Your task to perform on an android device: Show me the alarms in the clock app Image 0: 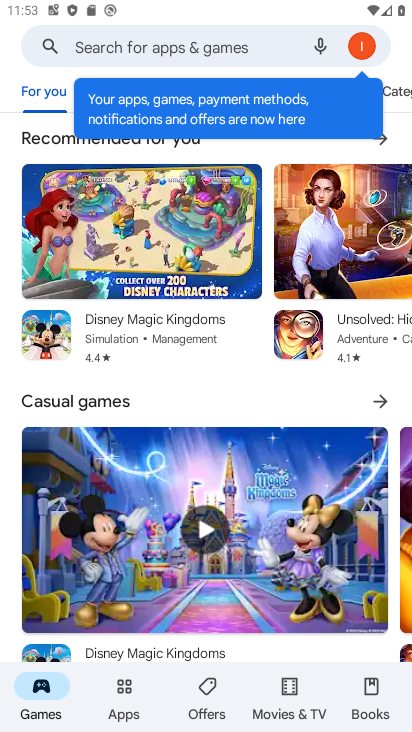
Step 0: press back button
Your task to perform on an android device: Show me the alarms in the clock app Image 1: 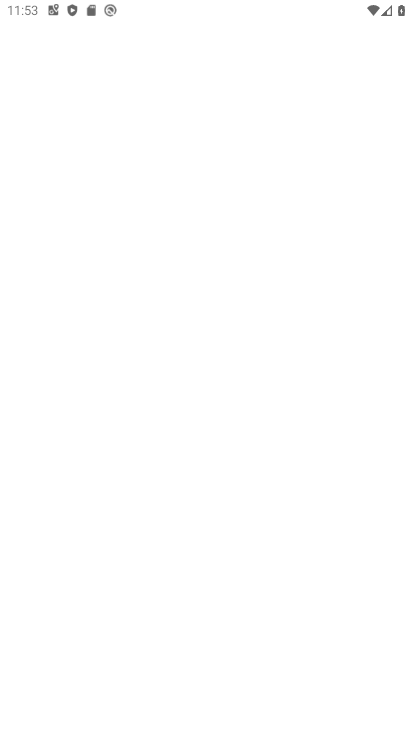
Step 1: press back button
Your task to perform on an android device: Show me the alarms in the clock app Image 2: 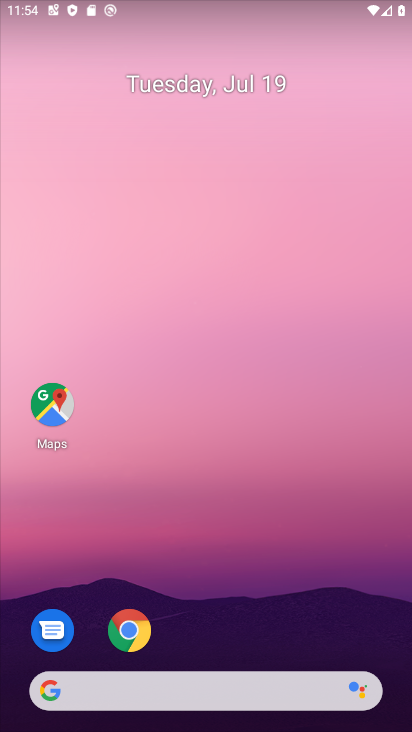
Step 2: drag from (242, 658) to (163, 77)
Your task to perform on an android device: Show me the alarms in the clock app Image 3: 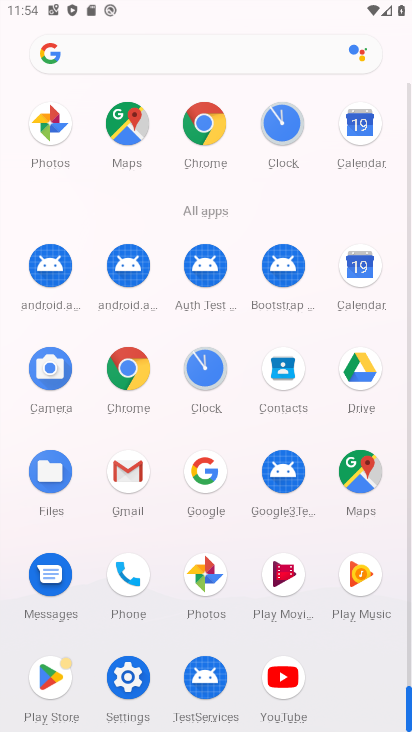
Step 3: drag from (250, 480) to (184, 50)
Your task to perform on an android device: Show me the alarms in the clock app Image 4: 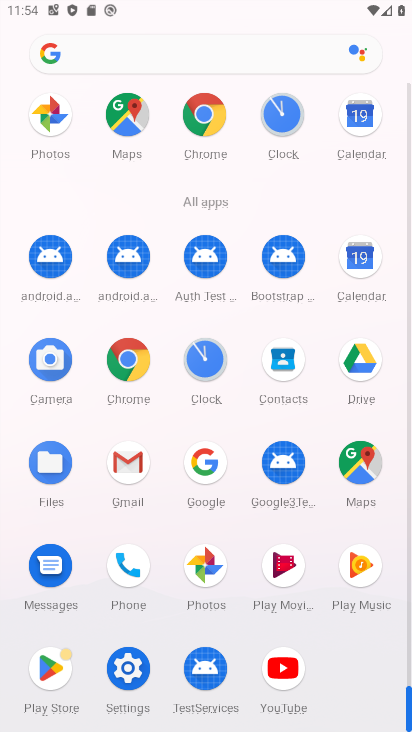
Step 4: click (217, 359)
Your task to perform on an android device: Show me the alarms in the clock app Image 5: 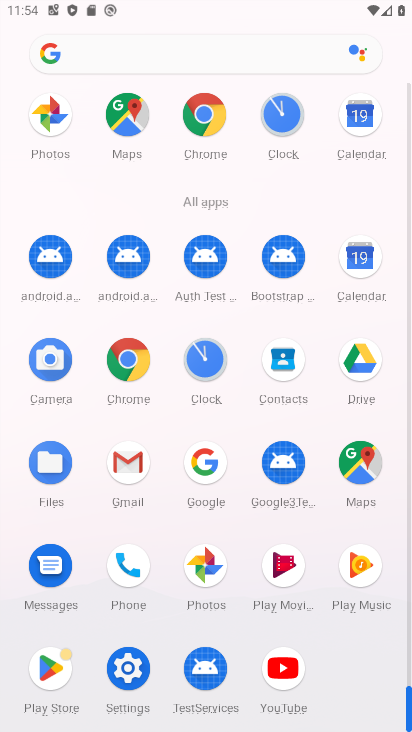
Step 5: click (217, 359)
Your task to perform on an android device: Show me the alarms in the clock app Image 6: 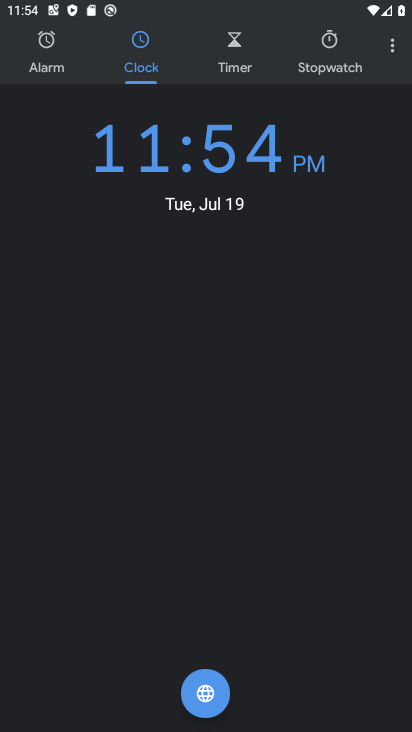
Step 6: click (51, 39)
Your task to perform on an android device: Show me the alarms in the clock app Image 7: 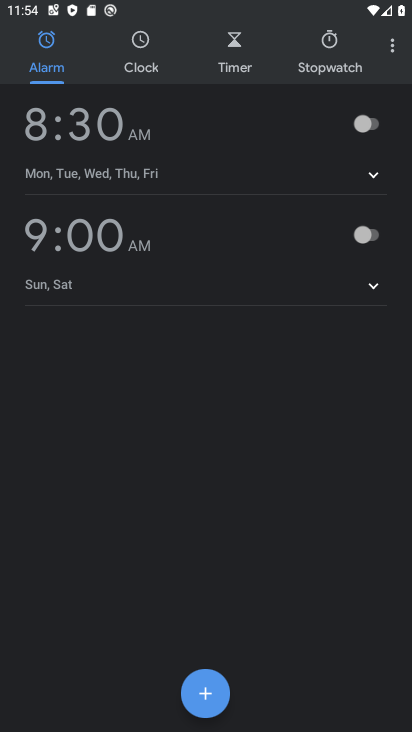
Step 7: task complete